Your task to perform on an android device: Open the calendar and show me this week's events Image 0: 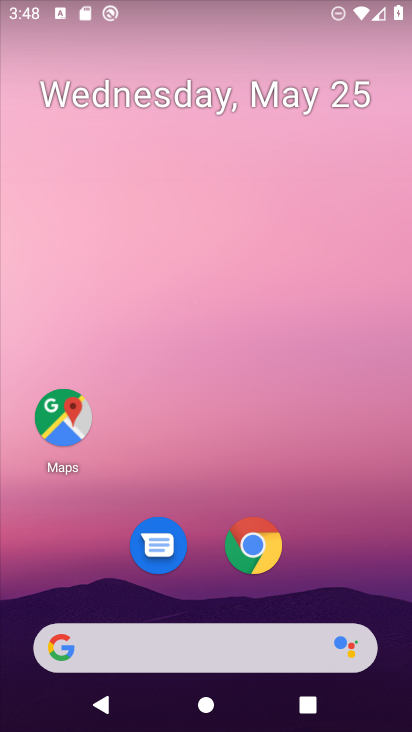
Step 0: drag from (367, 565) to (291, 95)
Your task to perform on an android device: Open the calendar and show me this week's events Image 1: 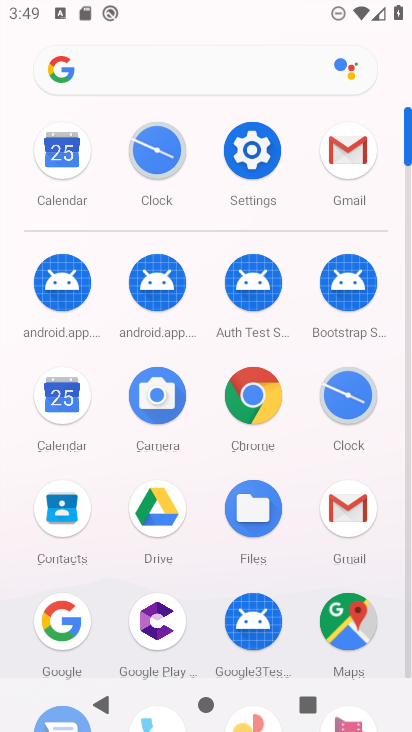
Step 1: click (77, 180)
Your task to perform on an android device: Open the calendar and show me this week's events Image 2: 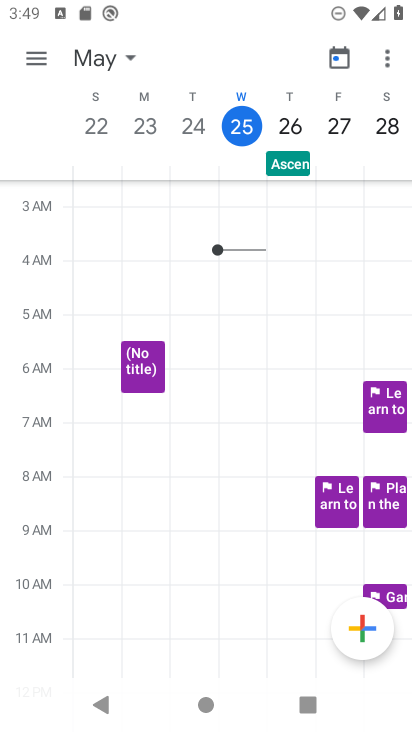
Step 2: task complete